Your task to perform on an android device: turn on airplane mode Image 0: 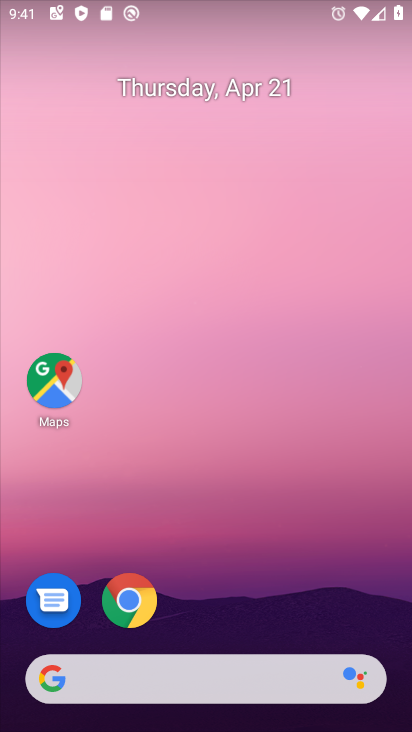
Step 0: drag from (251, 555) to (280, 98)
Your task to perform on an android device: turn on airplane mode Image 1: 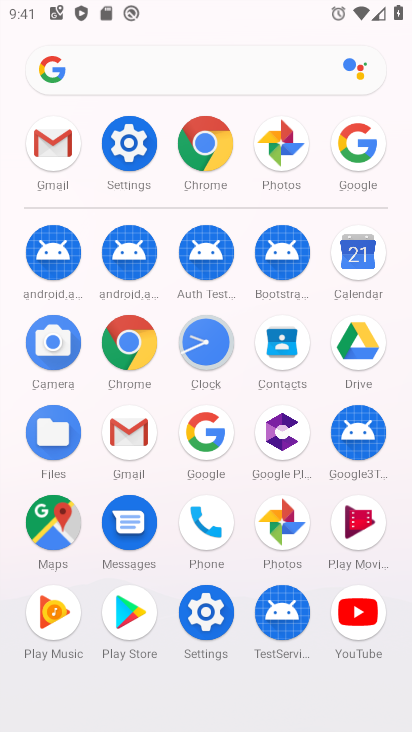
Step 1: click (132, 144)
Your task to perform on an android device: turn on airplane mode Image 2: 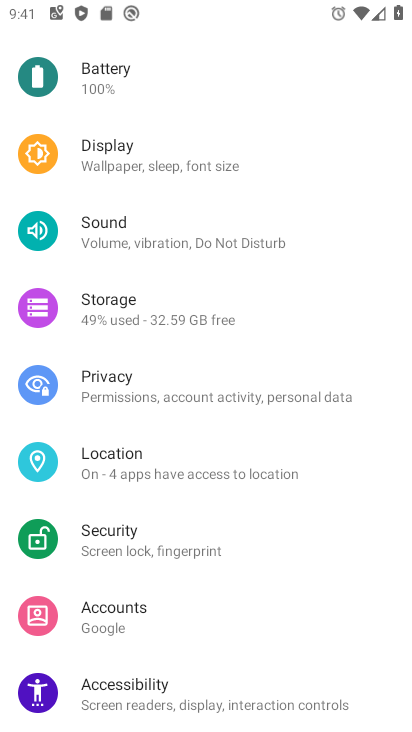
Step 2: drag from (211, 132) to (253, 607)
Your task to perform on an android device: turn on airplane mode Image 3: 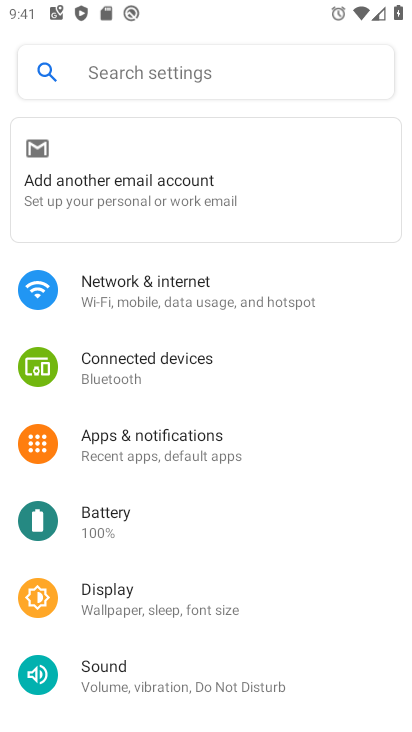
Step 3: click (186, 289)
Your task to perform on an android device: turn on airplane mode Image 4: 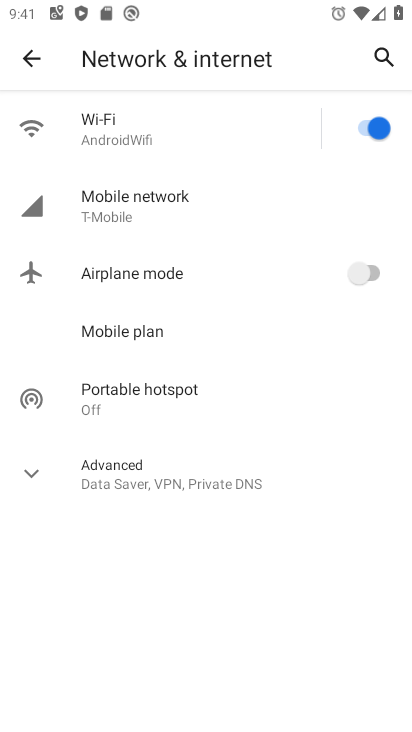
Step 4: click (356, 277)
Your task to perform on an android device: turn on airplane mode Image 5: 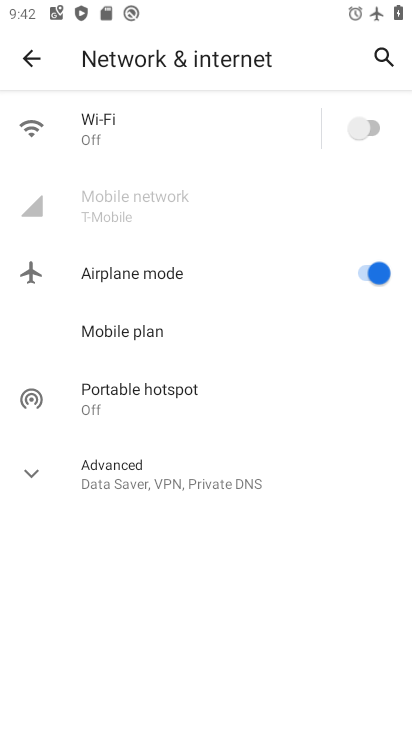
Step 5: task complete